Your task to perform on an android device: check data usage Image 0: 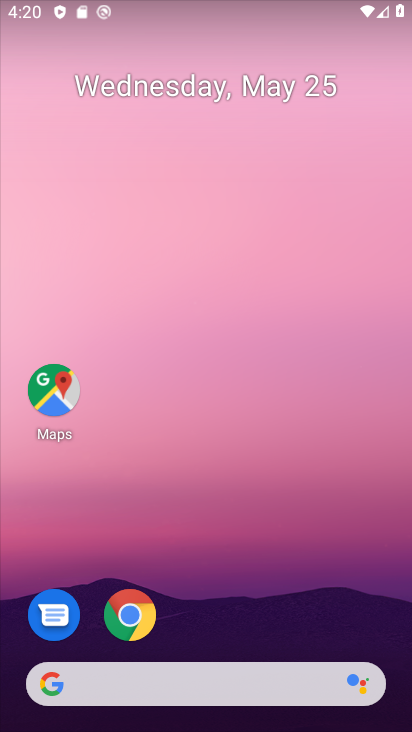
Step 0: press home button
Your task to perform on an android device: check data usage Image 1: 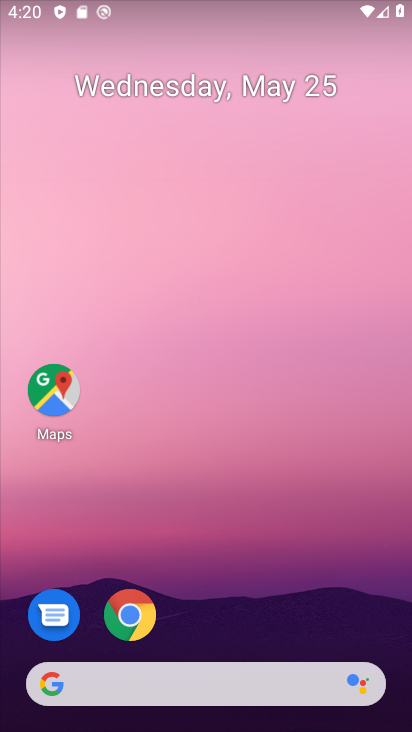
Step 1: drag from (269, 462) to (260, 173)
Your task to perform on an android device: check data usage Image 2: 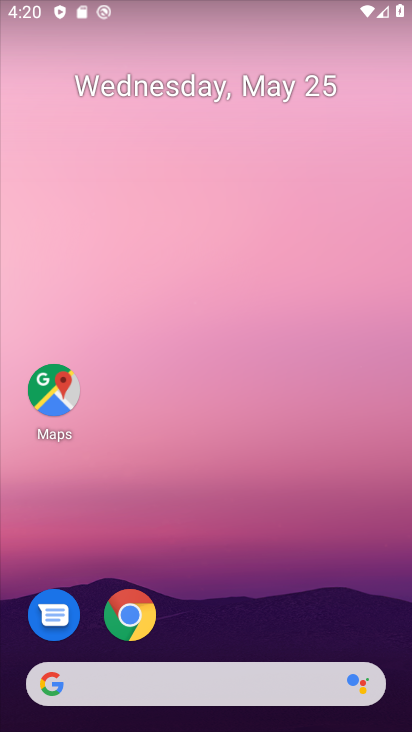
Step 2: drag from (272, 1) to (271, 720)
Your task to perform on an android device: check data usage Image 3: 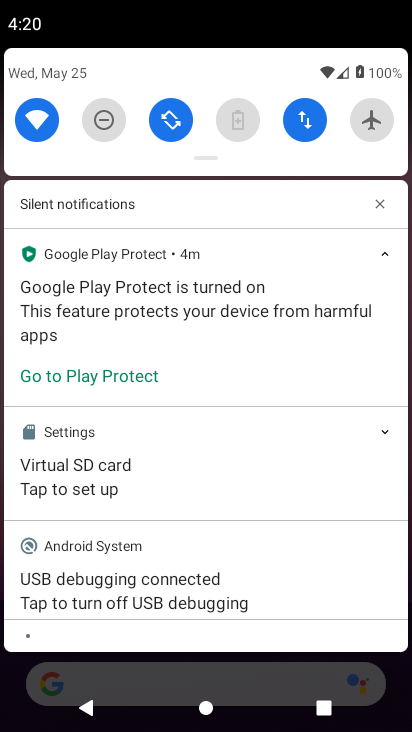
Step 3: click (309, 121)
Your task to perform on an android device: check data usage Image 4: 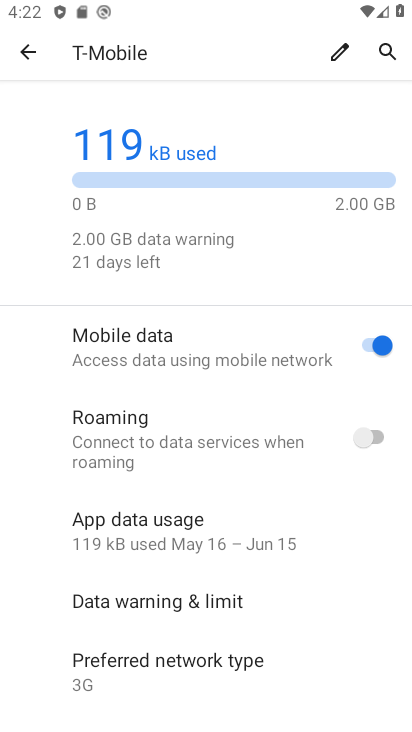
Step 4: task complete